Your task to perform on an android device: What's the weather today? Image 0: 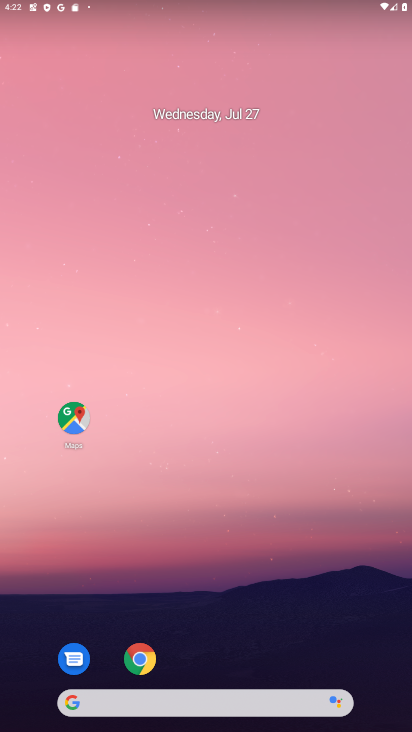
Step 0: click (141, 657)
Your task to perform on an android device: What's the weather today? Image 1: 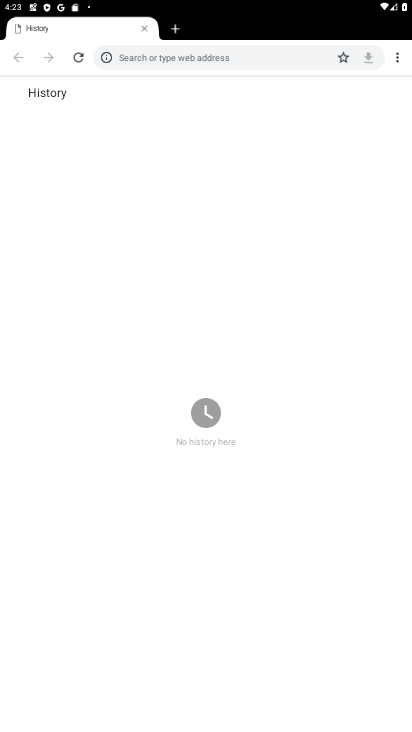
Step 1: click (210, 55)
Your task to perform on an android device: What's the weather today? Image 2: 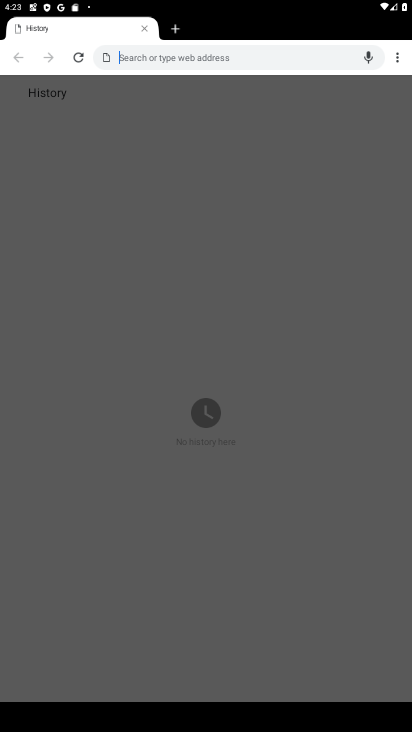
Step 2: type "What's the weather today?"
Your task to perform on an android device: What's the weather today? Image 3: 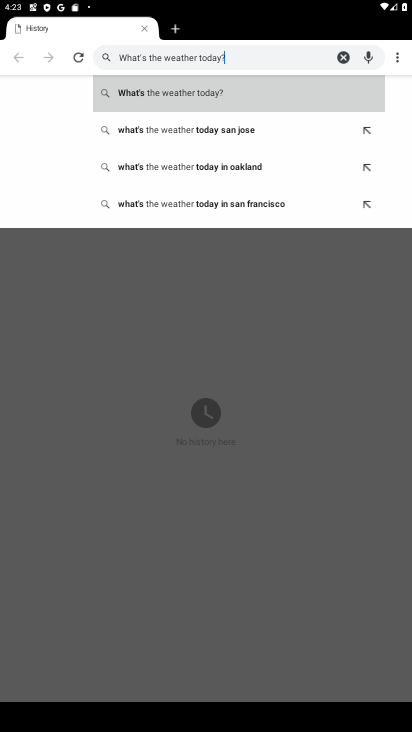
Step 3: click (222, 87)
Your task to perform on an android device: What's the weather today? Image 4: 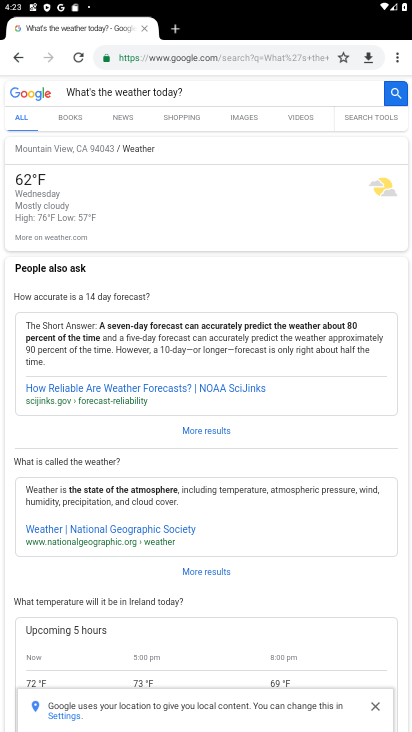
Step 4: task complete